Your task to perform on an android device: toggle notification dots Image 0: 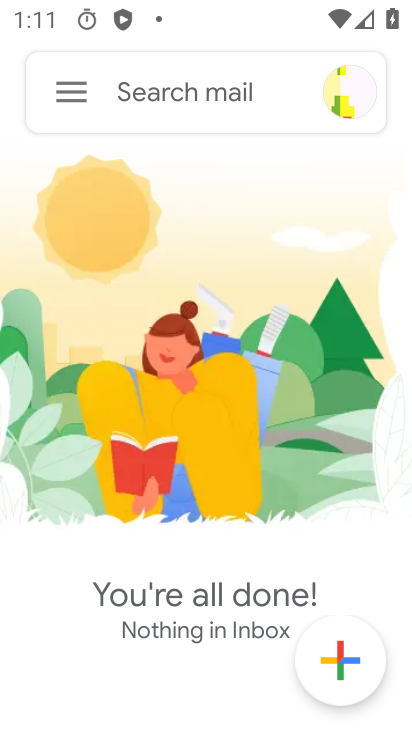
Step 0: press home button
Your task to perform on an android device: toggle notification dots Image 1: 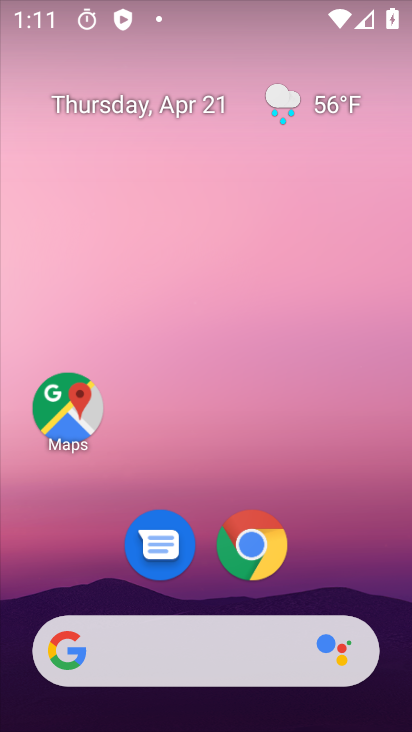
Step 1: drag from (215, 659) to (325, 168)
Your task to perform on an android device: toggle notification dots Image 2: 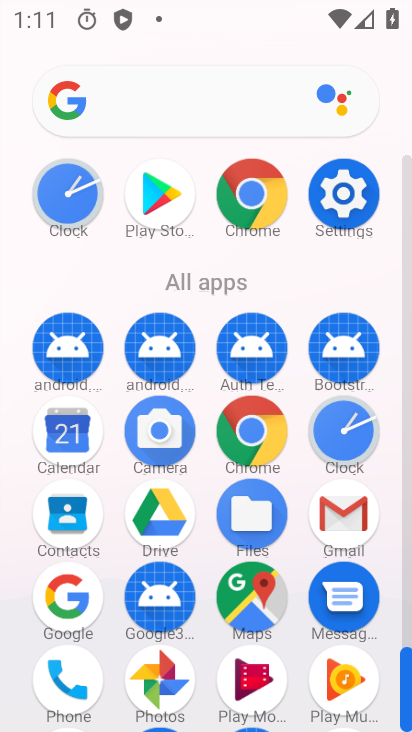
Step 2: click (354, 198)
Your task to perform on an android device: toggle notification dots Image 3: 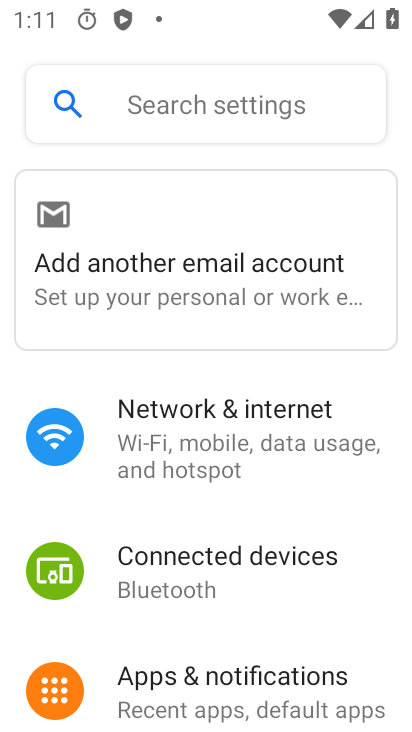
Step 3: click (249, 676)
Your task to perform on an android device: toggle notification dots Image 4: 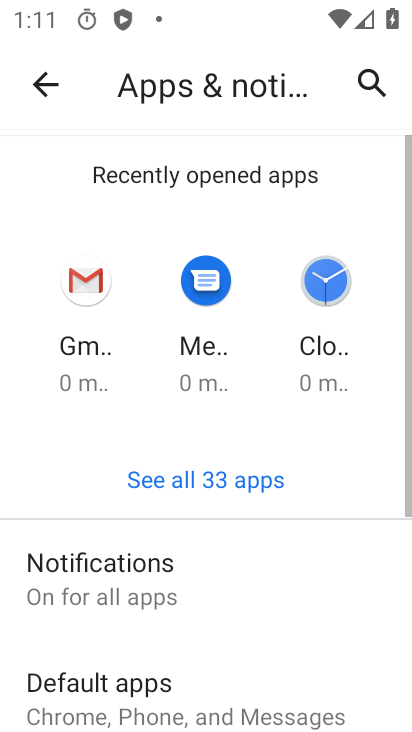
Step 4: click (137, 566)
Your task to perform on an android device: toggle notification dots Image 5: 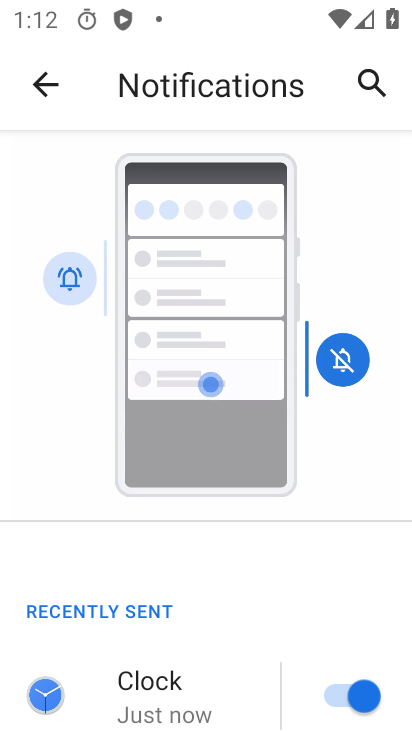
Step 5: drag from (243, 656) to (340, 138)
Your task to perform on an android device: toggle notification dots Image 6: 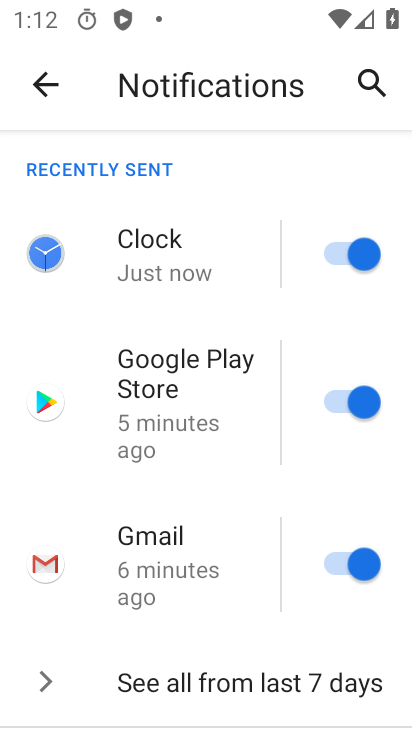
Step 6: drag from (217, 612) to (355, 155)
Your task to perform on an android device: toggle notification dots Image 7: 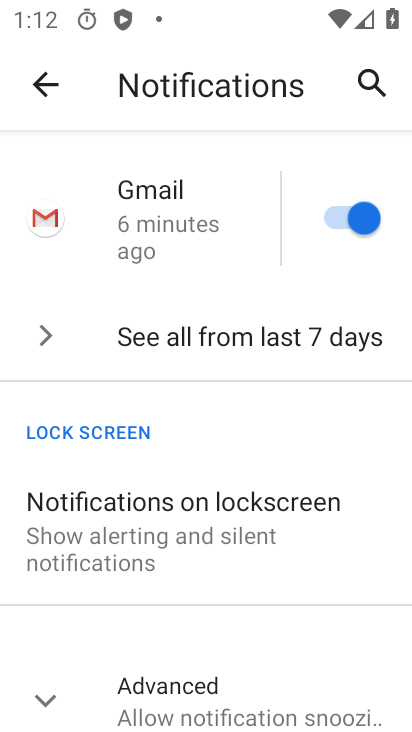
Step 7: drag from (173, 624) to (292, 190)
Your task to perform on an android device: toggle notification dots Image 8: 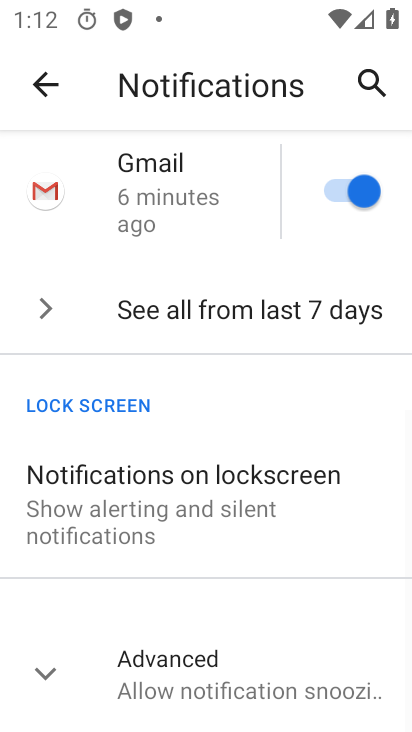
Step 8: click (200, 666)
Your task to perform on an android device: toggle notification dots Image 9: 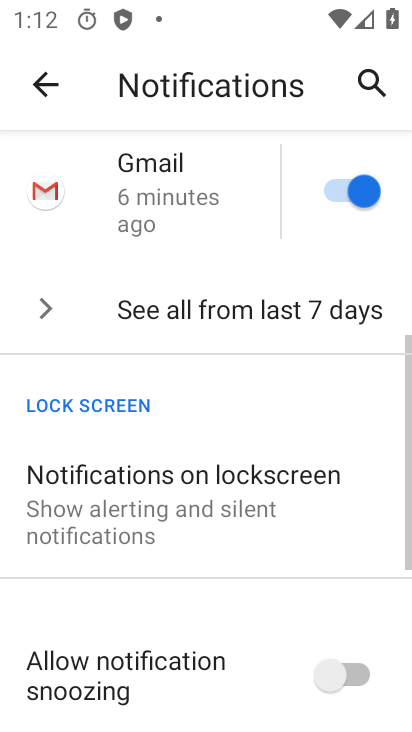
Step 9: drag from (117, 668) to (154, 144)
Your task to perform on an android device: toggle notification dots Image 10: 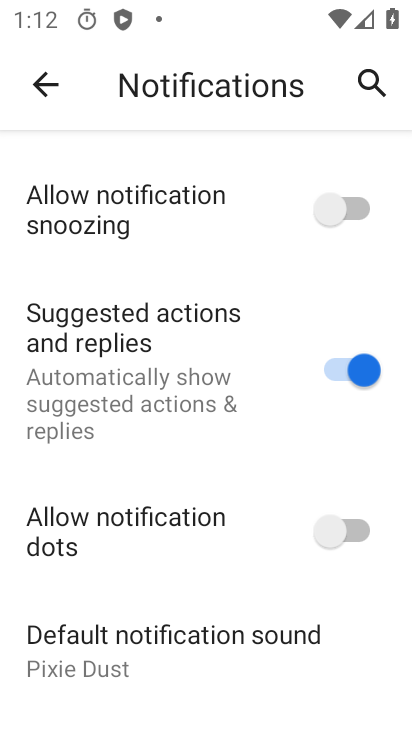
Step 10: click (347, 532)
Your task to perform on an android device: toggle notification dots Image 11: 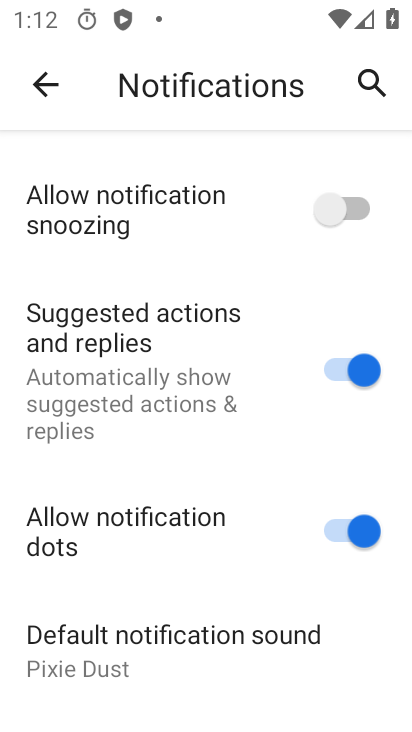
Step 11: task complete